Your task to perform on an android device: open chrome and create a bookmark for the current page Image 0: 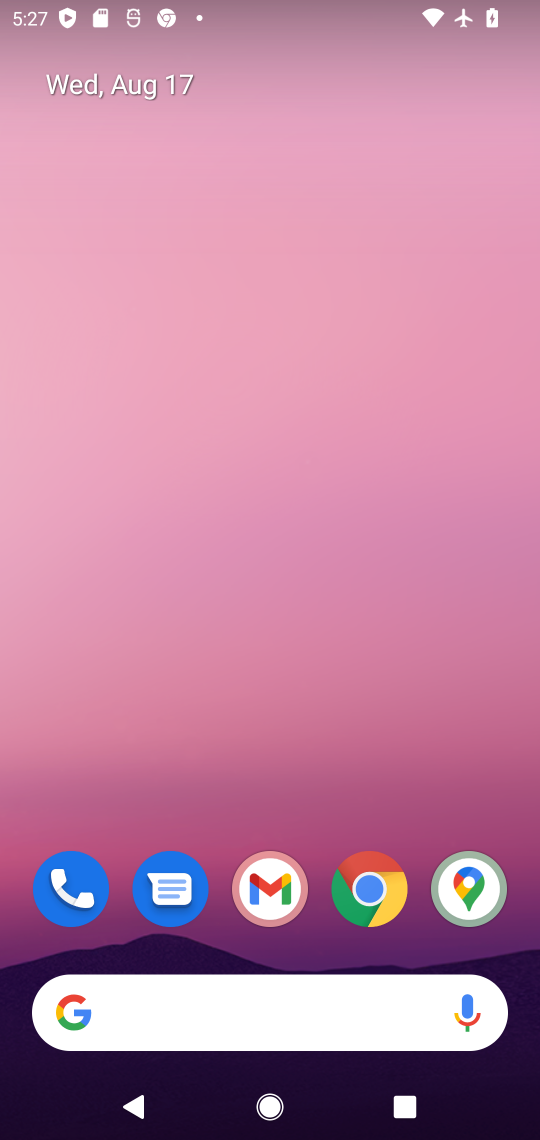
Step 0: press home button
Your task to perform on an android device: open chrome and create a bookmark for the current page Image 1: 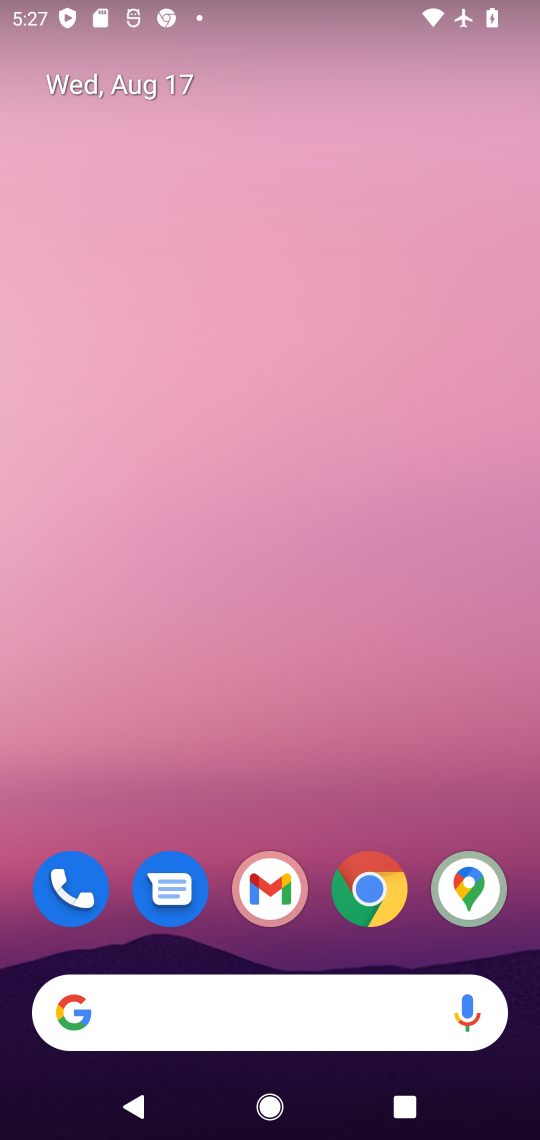
Step 1: click (373, 888)
Your task to perform on an android device: open chrome and create a bookmark for the current page Image 2: 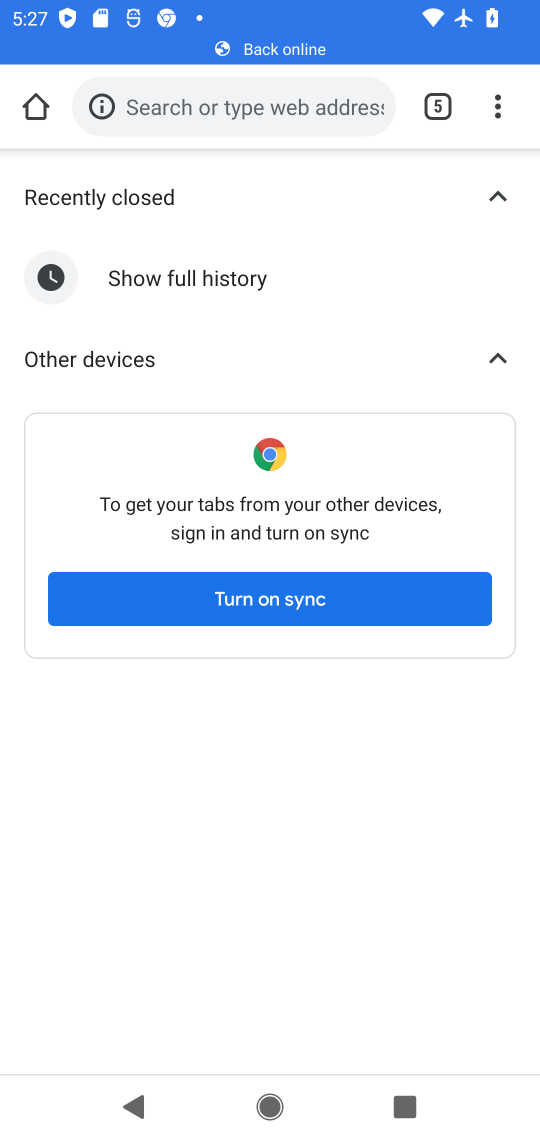
Step 2: click (498, 106)
Your task to perform on an android device: open chrome and create a bookmark for the current page Image 3: 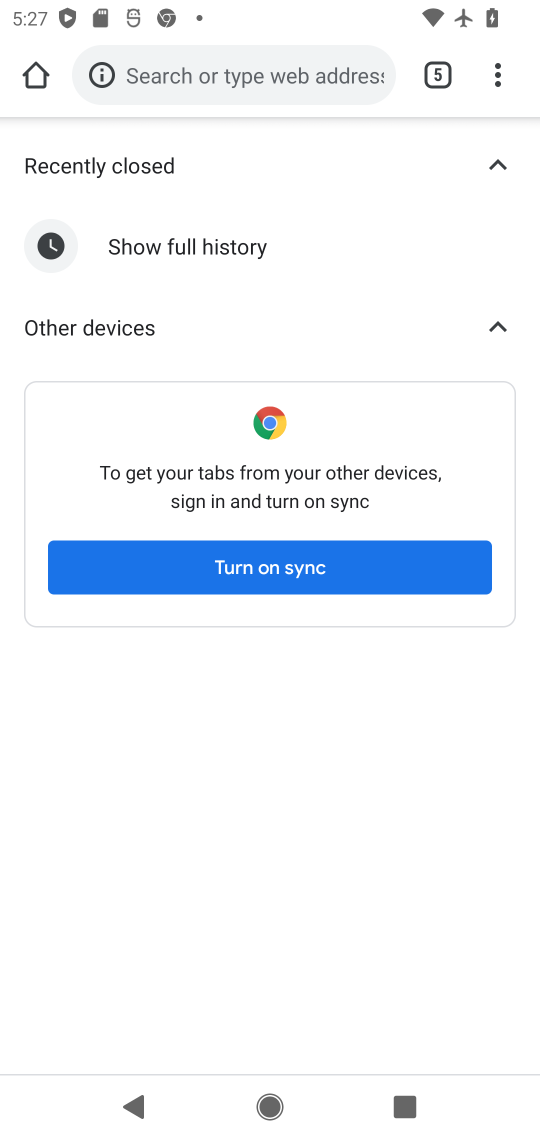
Step 3: click (486, 82)
Your task to perform on an android device: open chrome and create a bookmark for the current page Image 4: 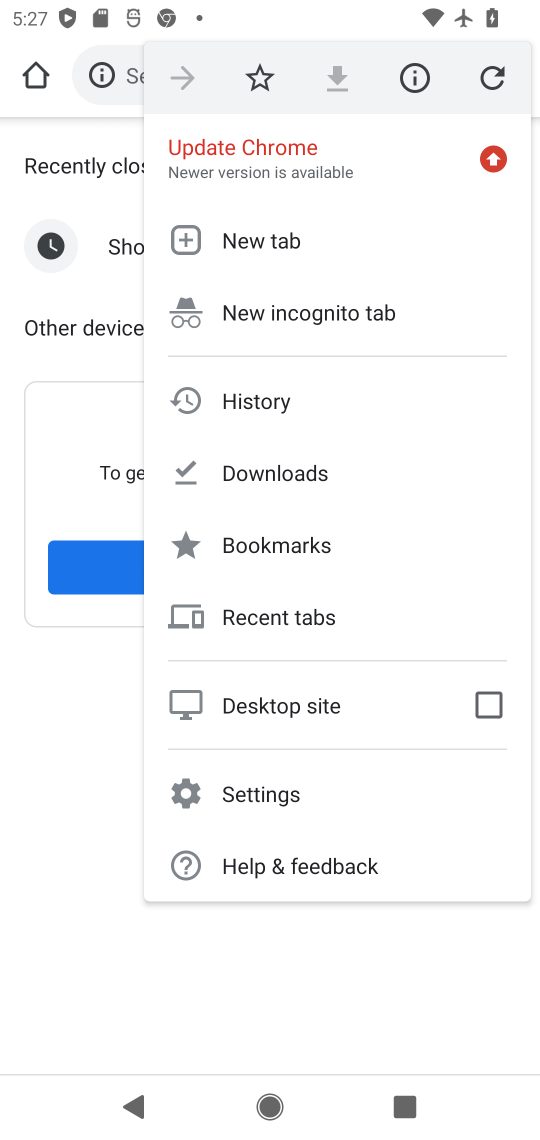
Step 4: click (263, 77)
Your task to perform on an android device: open chrome and create a bookmark for the current page Image 5: 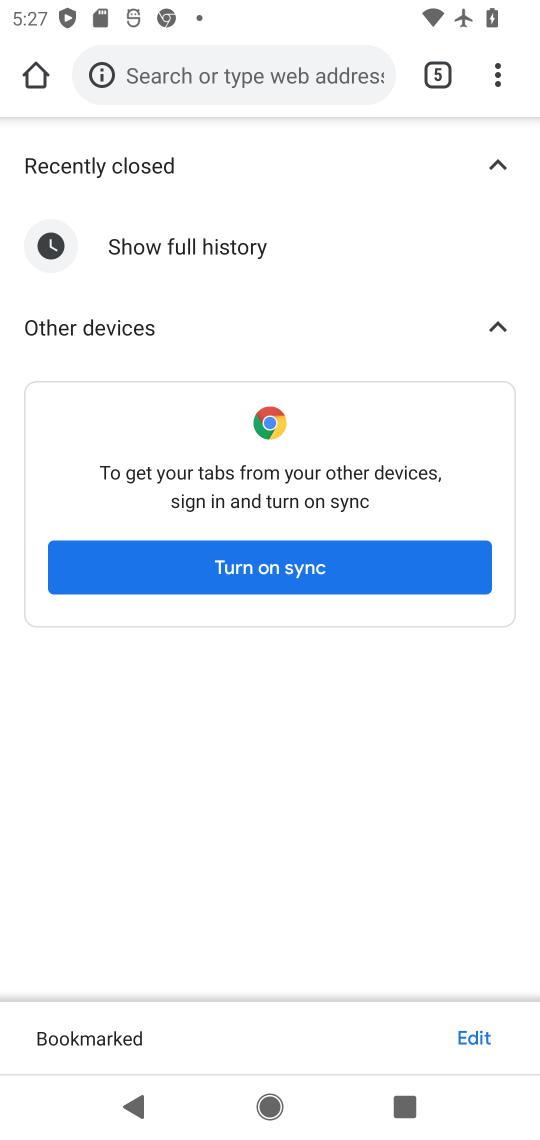
Step 5: task complete